Your task to perform on an android device: Show me productivity apps on the Play Store Image 0: 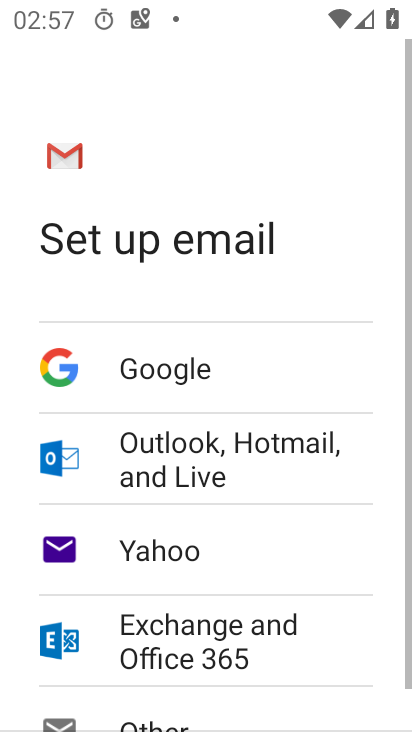
Step 0: press home button
Your task to perform on an android device: Show me productivity apps on the Play Store Image 1: 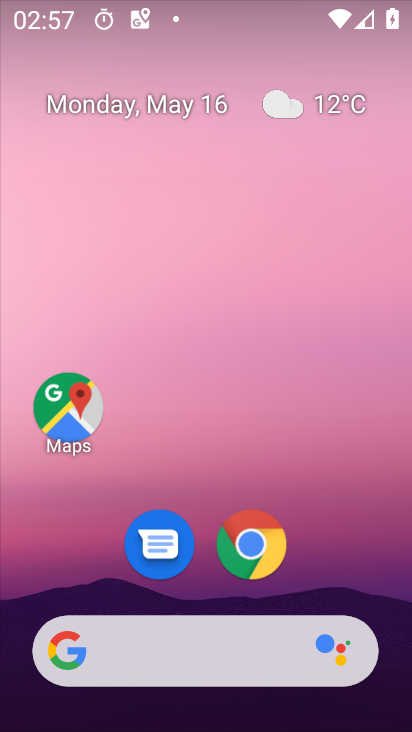
Step 1: drag from (215, 721) to (212, 272)
Your task to perform on an android device: Show me productivity apps on the Play Store Image 2: 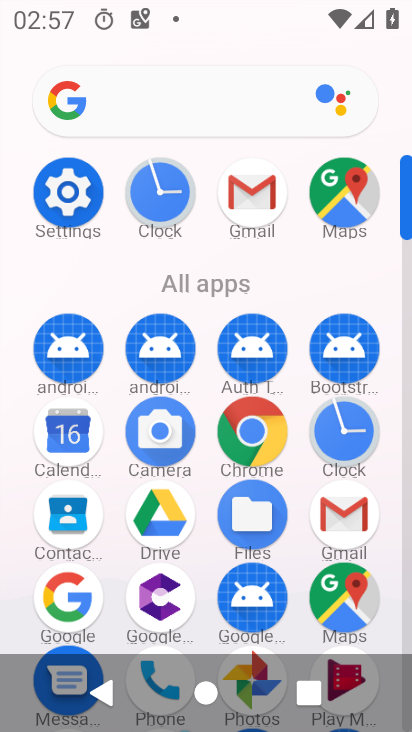
Step 2: drag from (209, 598) to (207, 215)
Your task to perform on an android device: Show me productivity apps on the Play Store Image 3: 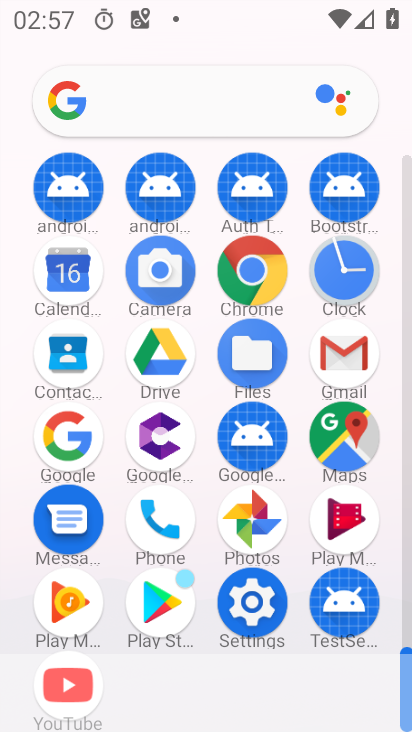
Step 3: click (160, 601)
Your task to perform on an android device: Show me productivity apps on the Play Store Image 4: 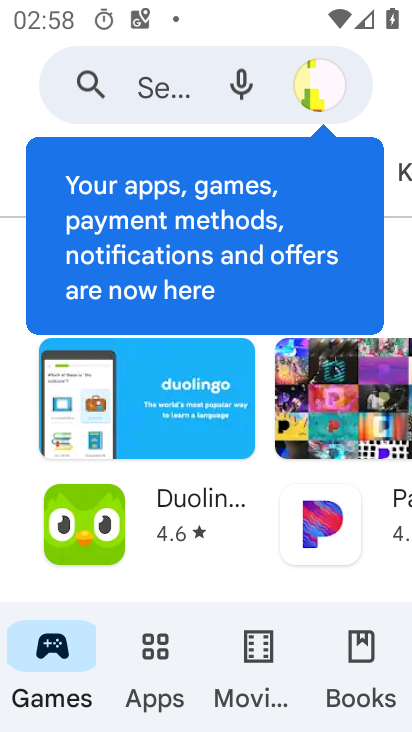
Step 4: click (152, 671)
Your task to perform on an android device: Show me productivity apps on the Play Store Image 5: 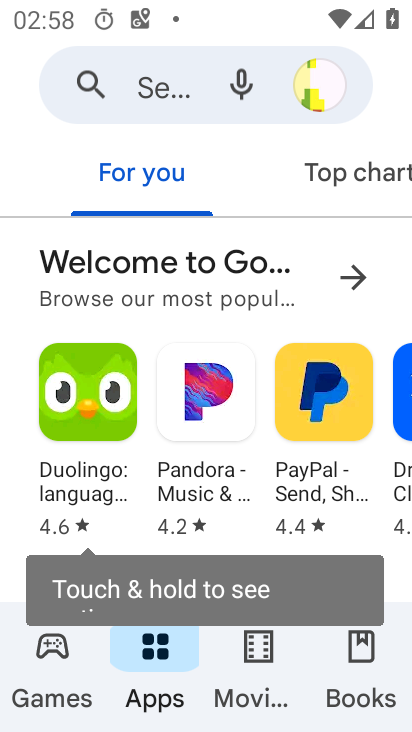
Step 5: drag from (342, 177) to (96, 191)
Your task to perform on an android device: Show me productivity apps on the Play Store Image 6: 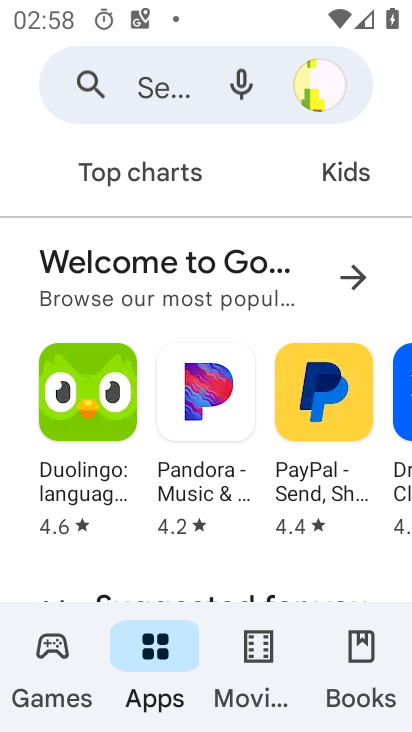
Step 6: drag from (348, 177) to (169, 179)
Your task to perform on an android device: Show me productivity apps on the Play Store Image 7: 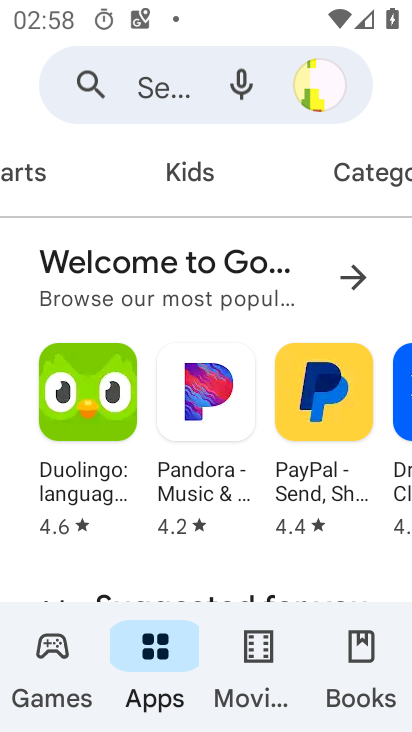
Step 7: click (360, 169)
Your task to perform on an android device: Show me productivity apps on the Play Store Image 8: 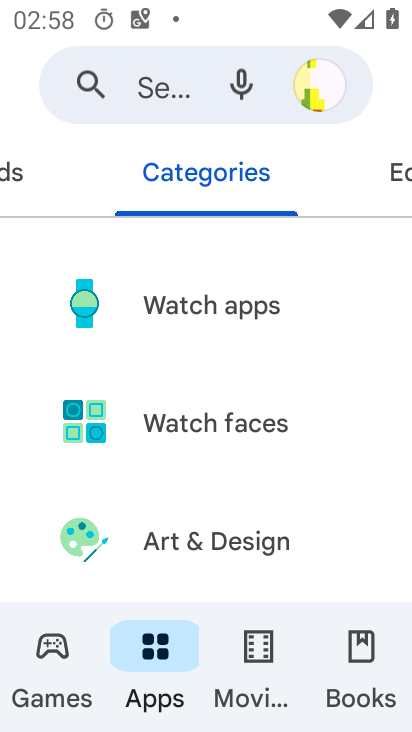
Step 8: drag from (239, 555) to (237, 210)
Your task to perform on an android device: Show me productivity apps on the Play Store Image 9: 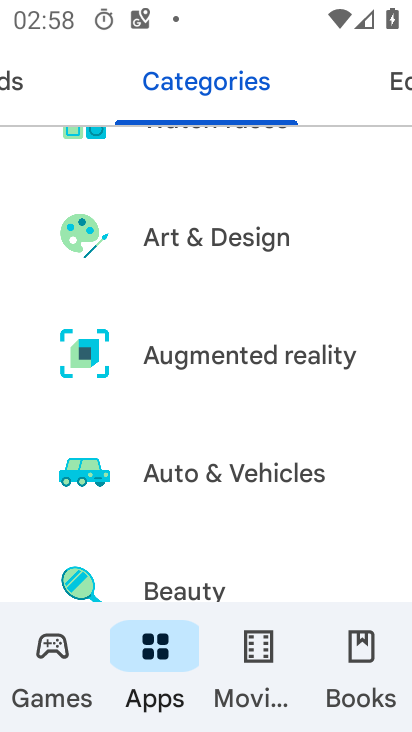
Step 9: drag from (258, 564) to (261, 247)
Your task to perform on an android device: Show me productivity apps on the Play Store Image 10: 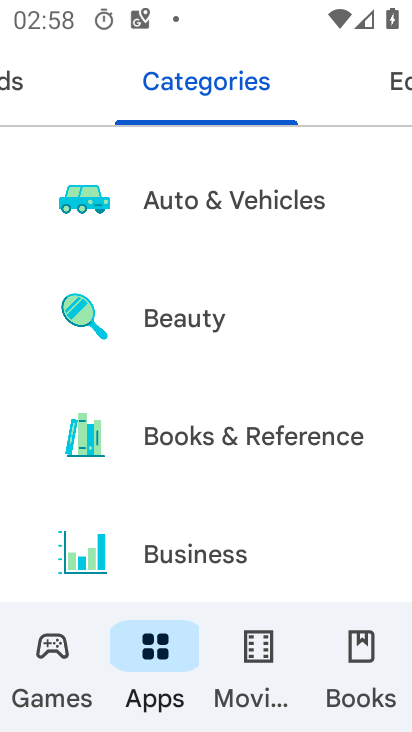
Step 10: drag from (252, 558) to (254, 190)
Your task to perform on an android device: Show me productivity apps on the Play Store Image 11: 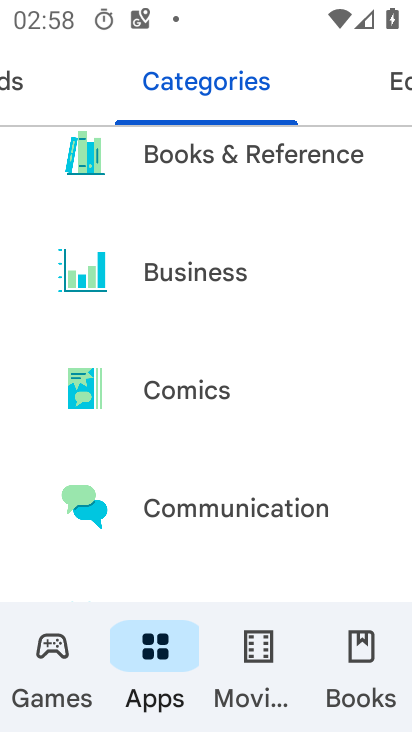
Step 11: drag from (260, 556) to (258, 240)
Your task to perform on an android device: Show me productivity apps on the Play Store Image 12: 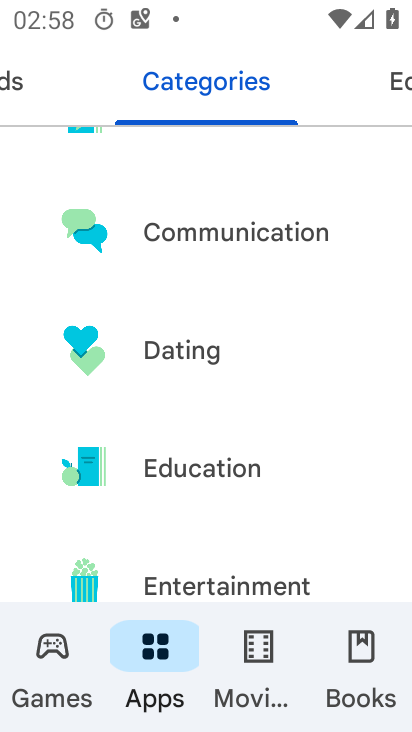
Step 12: drag from (267, 515) to (274, 205)
Your task to perform on an android device: Show me productivity apps on the Play Store Image 13: 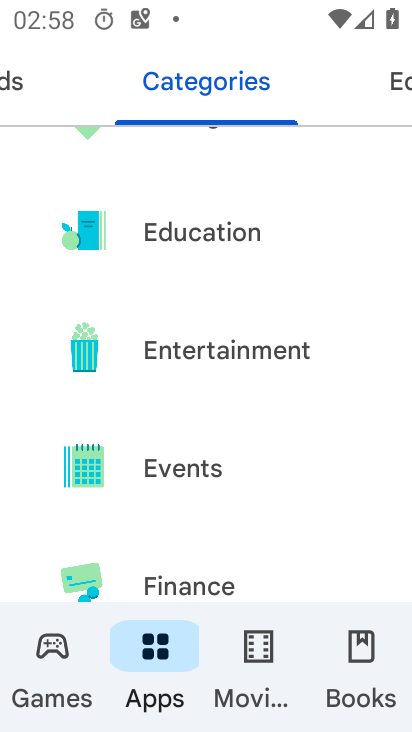
Step 13: drag from (254, 566) to (253, 134)
Your task to perform on an android device: Show me productivity apps on the Play Store Image 14: 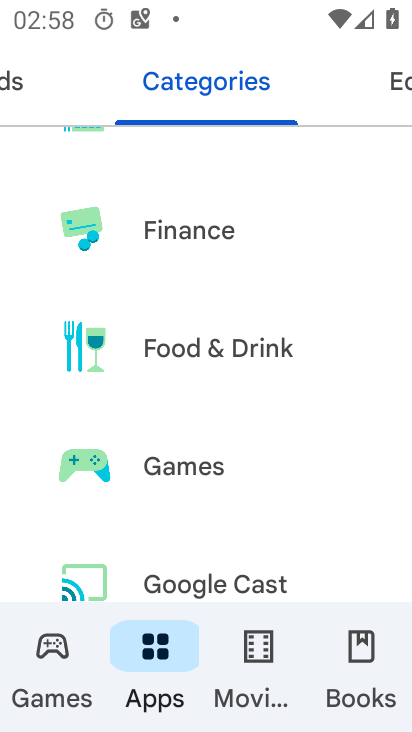
Step 14: drag from (186, 534) to (204, 169)
Your task to perform on an android device: Show me productivity apps on the Play Store Image 15: 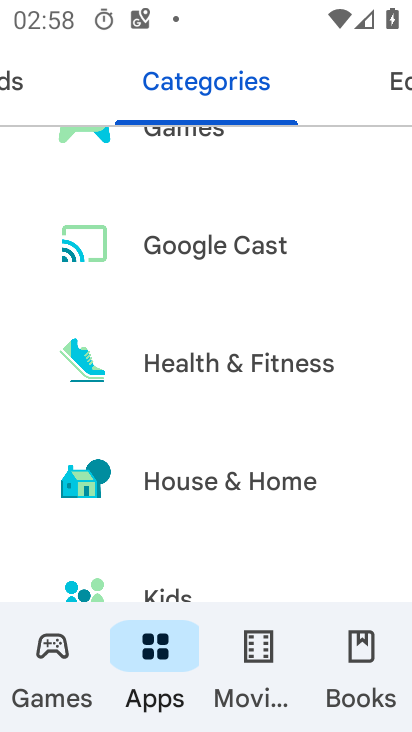
Step 15: drag from (245, 543) to (249, 138)
Your task to perform on an android device: Show me productivity apps on the Play Store Image 16: 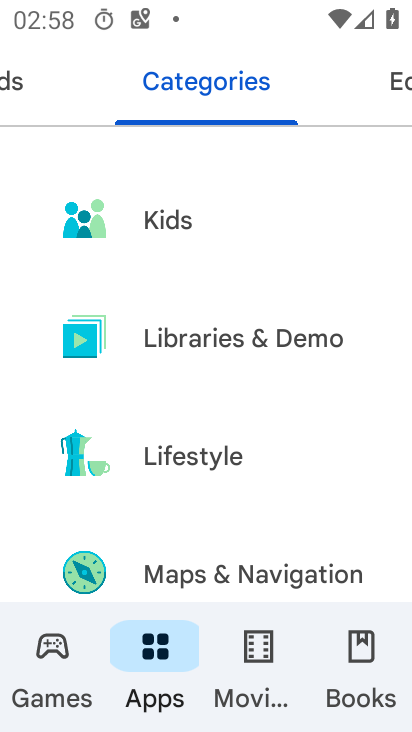
Step 16: drag from (243, 553) to (248, 90)
Your task to perform on an android device: Show me productivity apps on the Play Store Image 17: 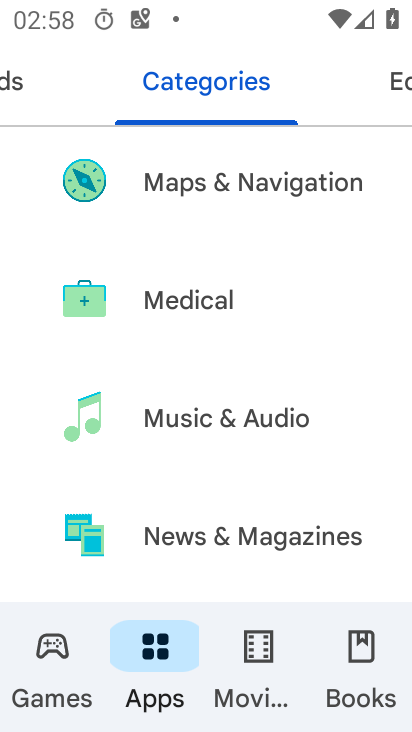
Step 17: drag from (238, 558) to (238, 159)
Your task to perform on an android device: Show me productivity apps on the Play Store Image 18: 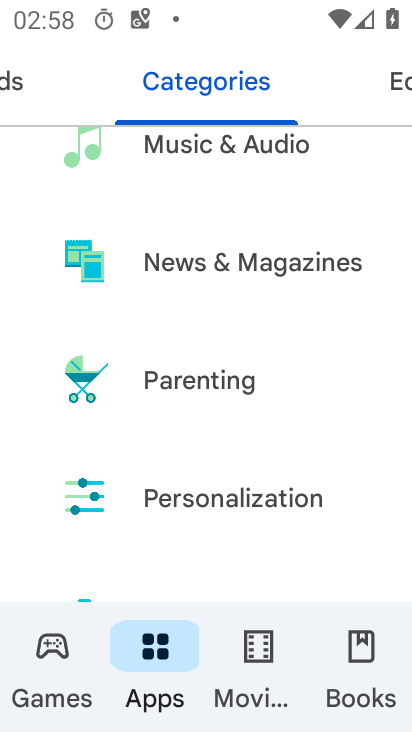
Step 18: drag from (219, 556) to (225, 195)
Your task to perform on an android device: Show me productivity apps on the Play Store Image 19: 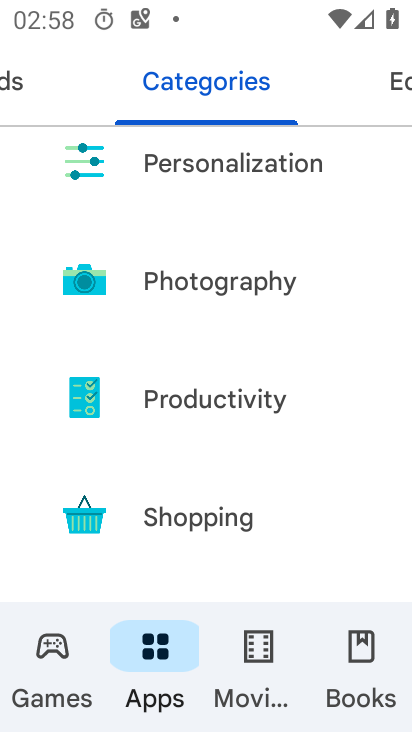
Step 19: click (211, 395)
Your task to perform on an android device: Show me productivity apps on the Play Store Image 20: 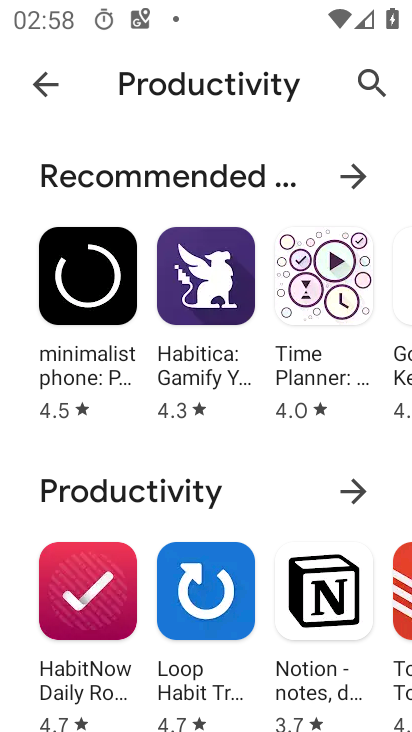
Step 20: task complete